Your task to perform on an android device: Go to ESPN.com Image 0: 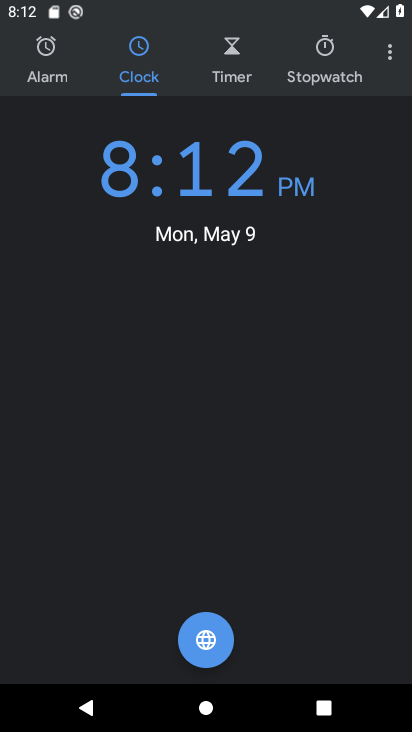
Step 0: press home button
Your task to perform on an android device: Go to ESPN.com Image 1: 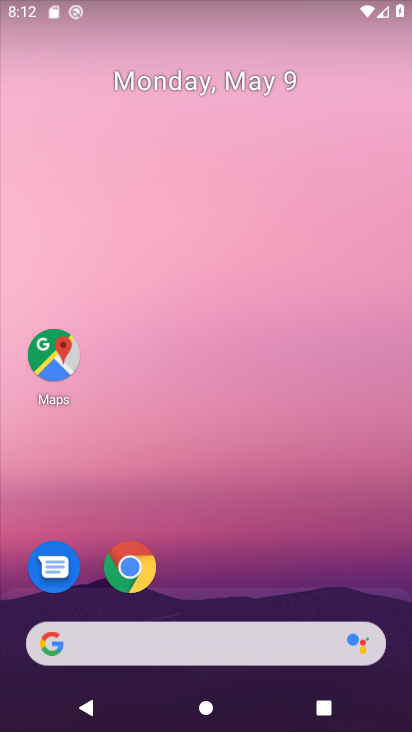
Step 1: click (142, 572)
Your task to perform on an android device: Go to ESPN.com Image 2: 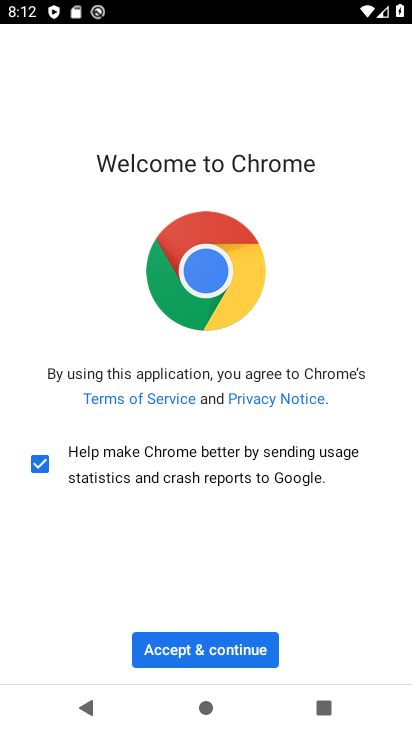
Step 2: click (202, 656)
Your task to perform on an android device: Go to ESPN.com Image 3: 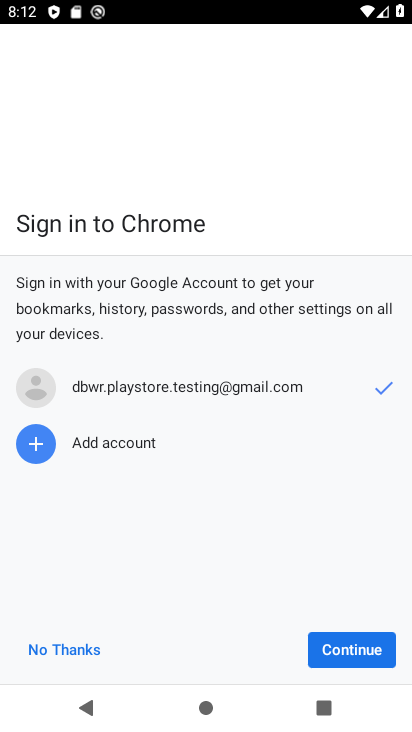
Step 3: click (335, 652)
Your task to perform on an android device: Go to ESPN.com Image 4: 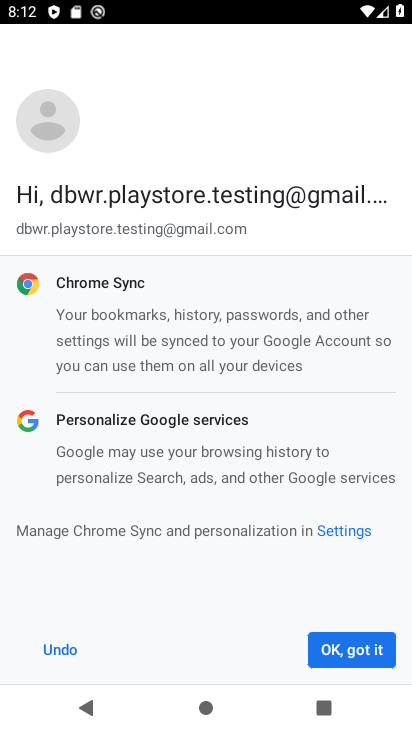
Step 4: click (331, 650)
Your task to perform on an android device: Go to ESPN.com Image 5: 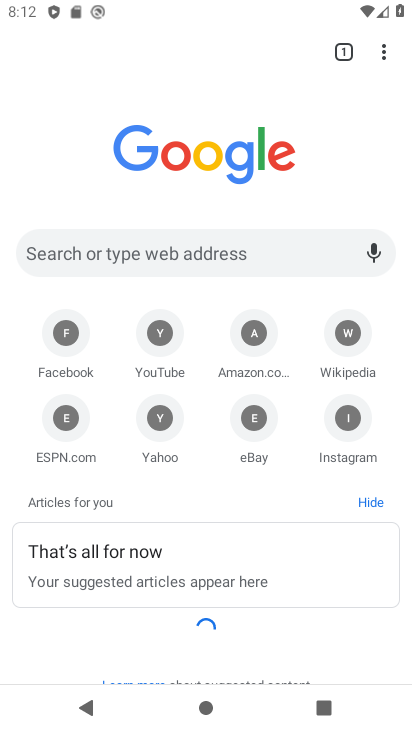
Step 5: click (161, 251)
Your task to perform on an android device: Go to ESPN.com Image 6: 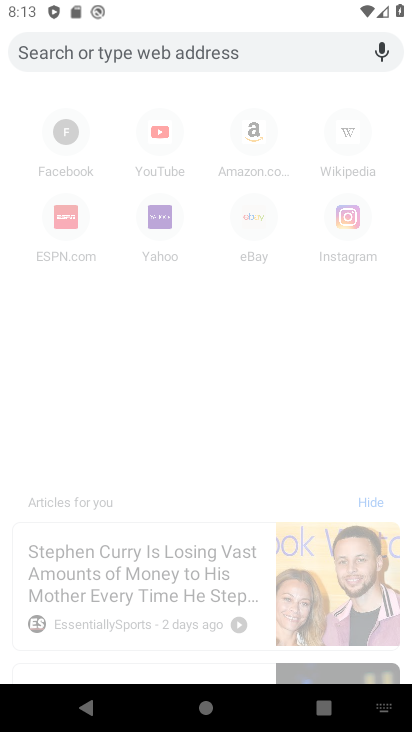
Step 6: type "espn.com"
Your task to perform on an android device: Go to ESPN.com Image 7: 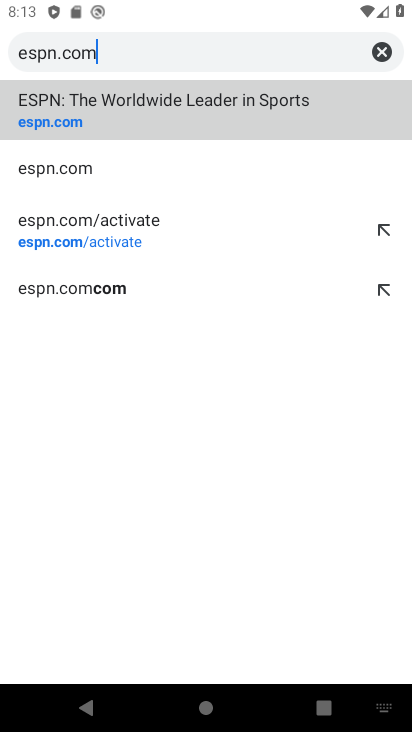
Step 7: click (92, 108)
Your task to perform on an android device: Go to ESPN.com Image 8: 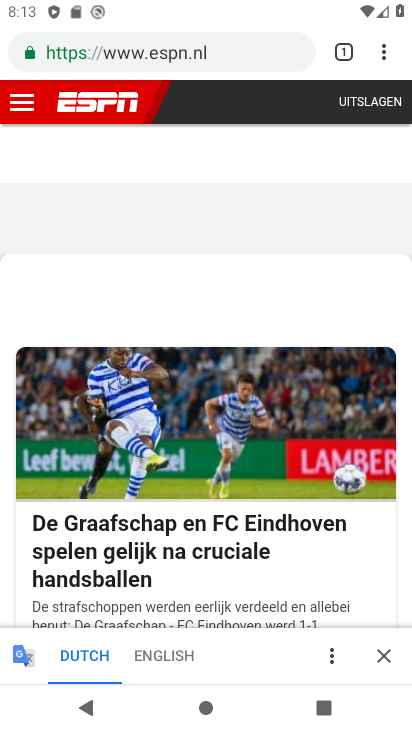
Step 8: task complete